Your task to perform on an android device: Open Google Chrome and click the shortcut for Amazon.com Image 0: 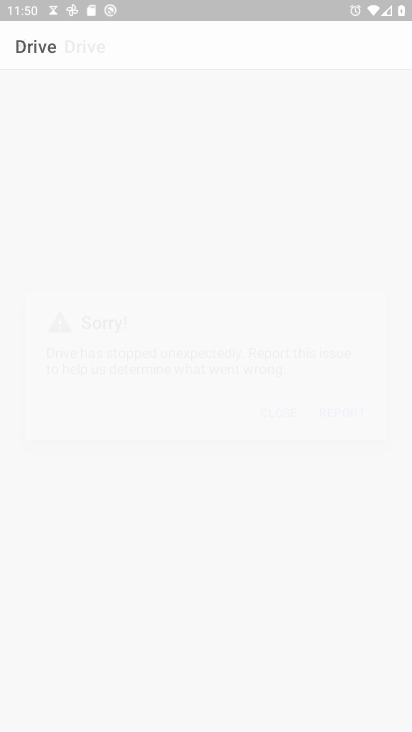
Step 0: drag from (251, 594) to (263, 45)
Your task to perform on an android device: Open Google Chrome and click the shortcut for Amazon.com Image 1: 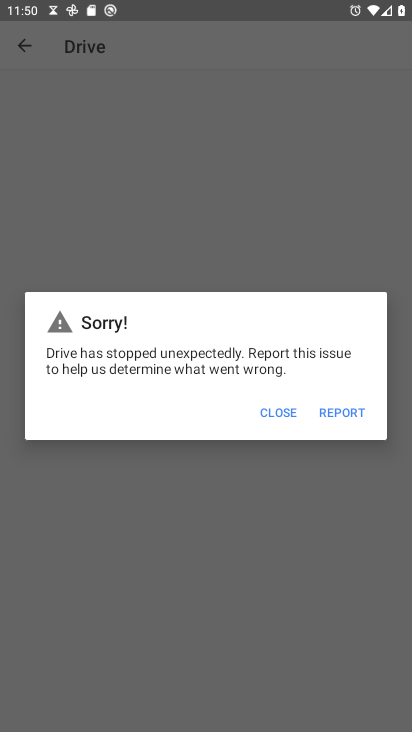
Step 1: press home button
Your task to perform on an android device: Open Google Chrome and click the shortcut for Amazon.com Image 2: 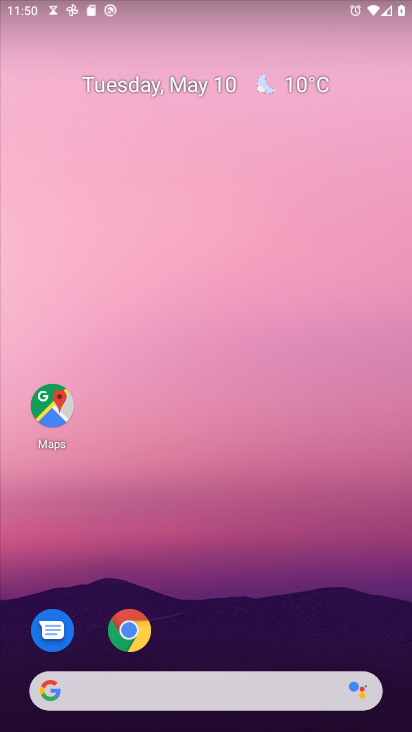
Step 2: click (118, 638)
Your task to perform on an android device: Open Google Chrome and click the shortcut for Amazon.com Image 3: 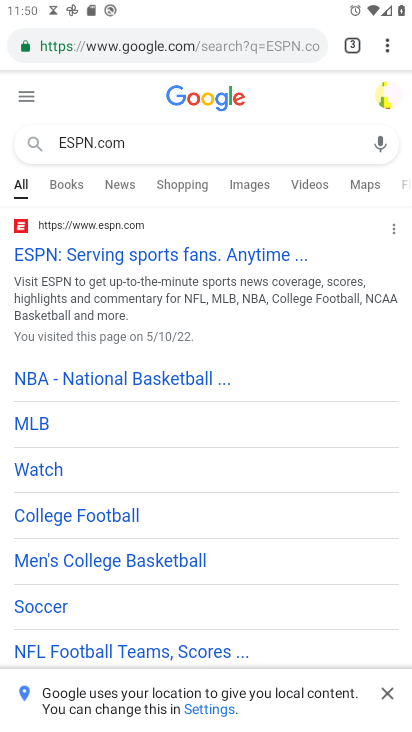
Step 3: click (355, 45)
Your task to perform on an android device: Open Google Chrome and click the shortcut for Amazon.com Image 4: 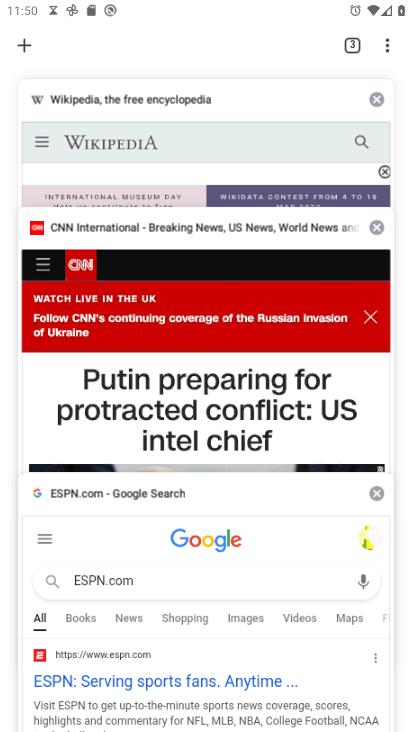
Step 4: click (25, 43)
Your task to perform on an android device: Open Google Chrome and click the shortcut for Amazon.com Image 5: 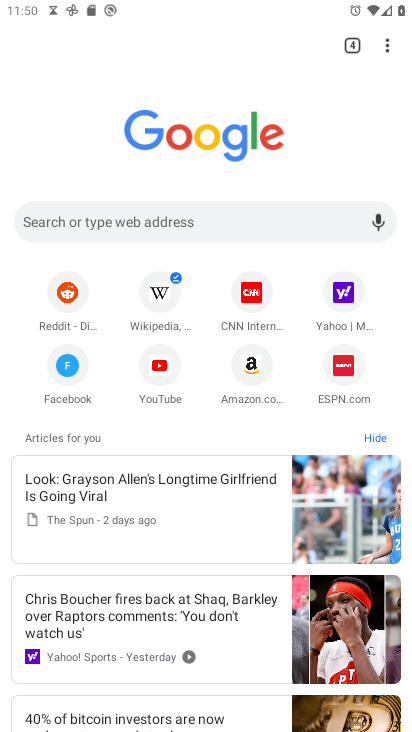
Step 5: click (253, 371)
Your task to perform on an android device: Open Google Chrome and click the shortcut for Amazon.com Image 6: 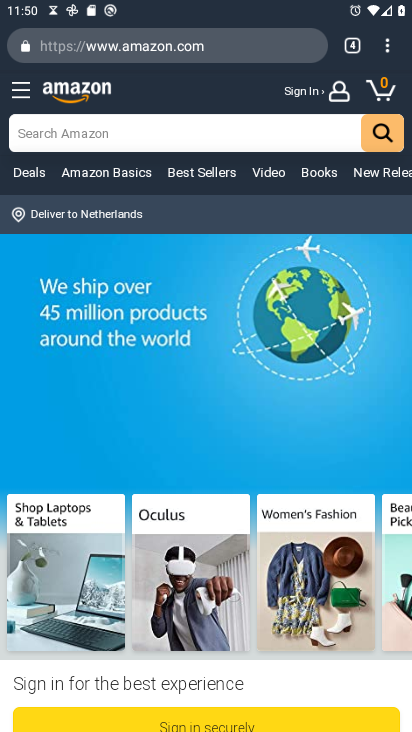
Step 6: task complete